Your task to perform on an android device: Toggle the flashlight Image 0: 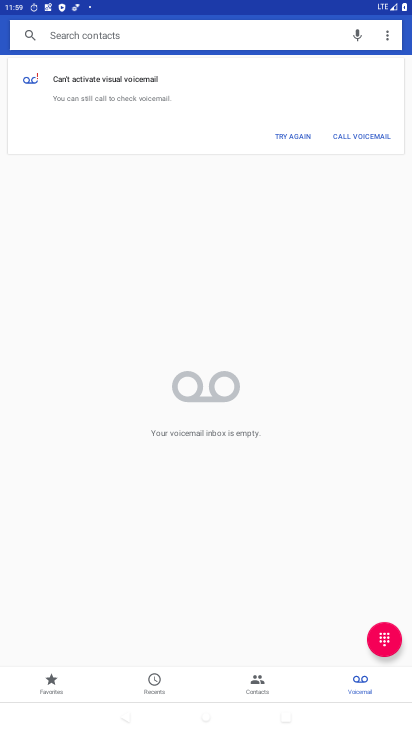
Step 0: press home button
Your task to perform on an android device: Toggle the flashlight Image 1: 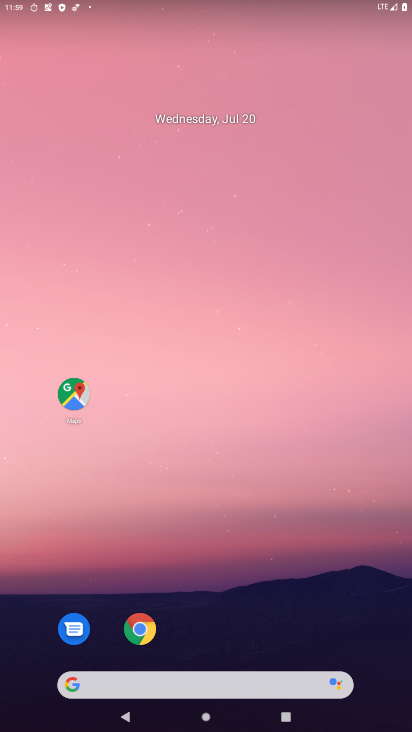
Step 1: task complete